Your task to perform on an android device: When is my next appointment? Image 0: 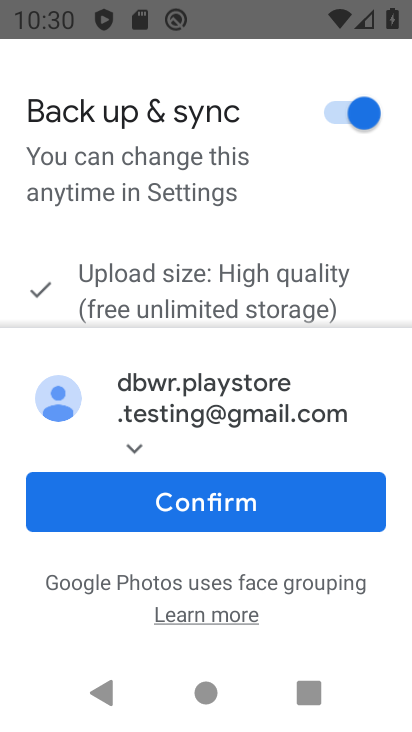
Step 0: press home button
Your task to perform on an android device: When is my next appointment? Image 1: 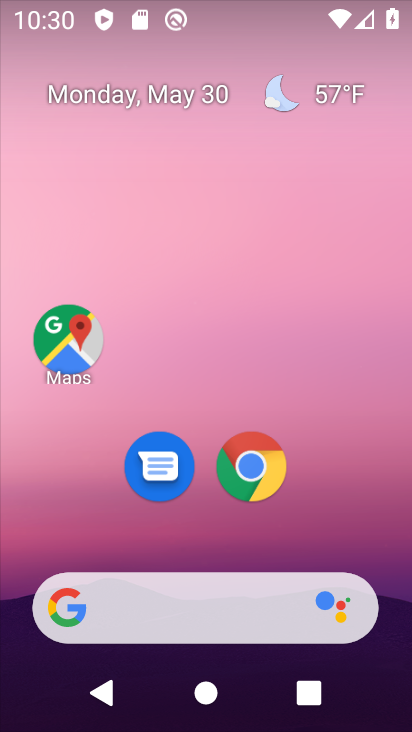
Step 1: drag from (318, 539) to (247, 73)
Your task to perform on an android device: When is my next appointment? Image 2: 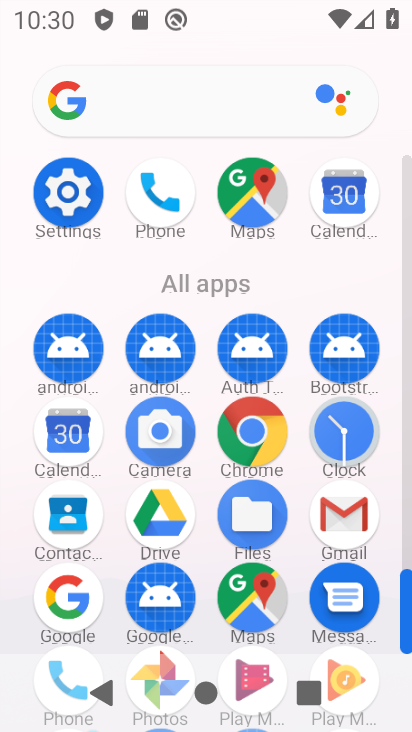
Step 2: click (61, 441)
Your task to perform on an android device: When is my next appointment? Image 3: 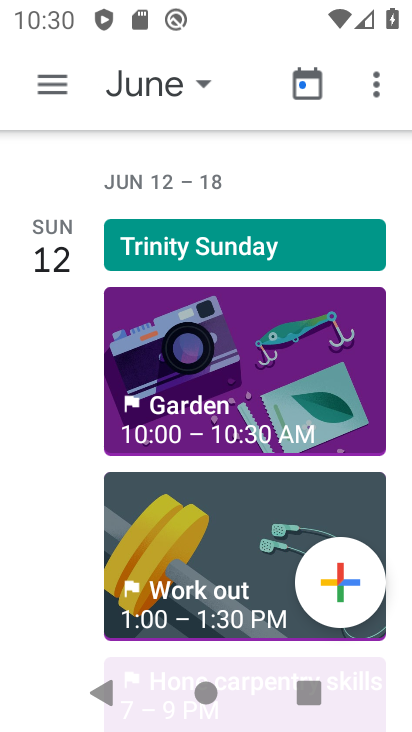
Step 3: click (53, 80)
Your task to perform on an android device: When is my next appointment? Image 4: 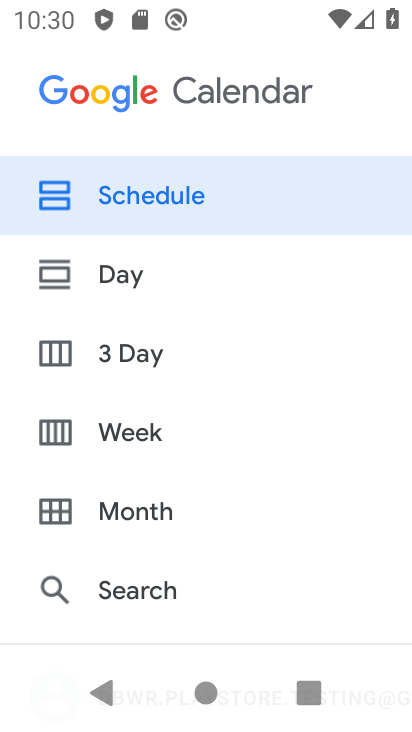
Step 4: drag from (347, 614) to (317, 182)
Your task to perform on an android device: When is my next appointment? Image 5: 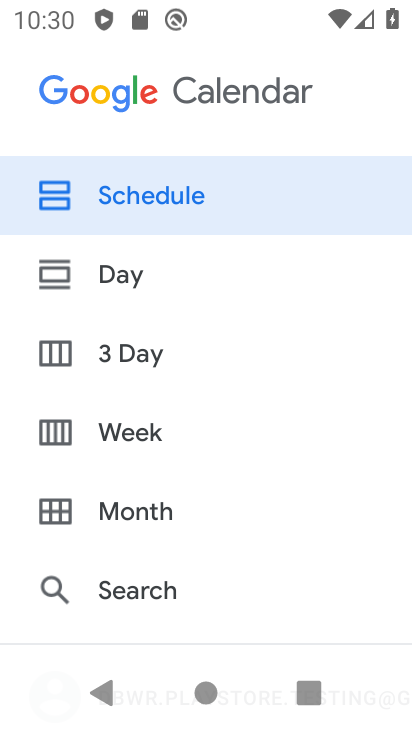
Step 5: drag from (282, 609) to (317, 112)
Your task to perform on an android device: When is my next appointment? Image 6: 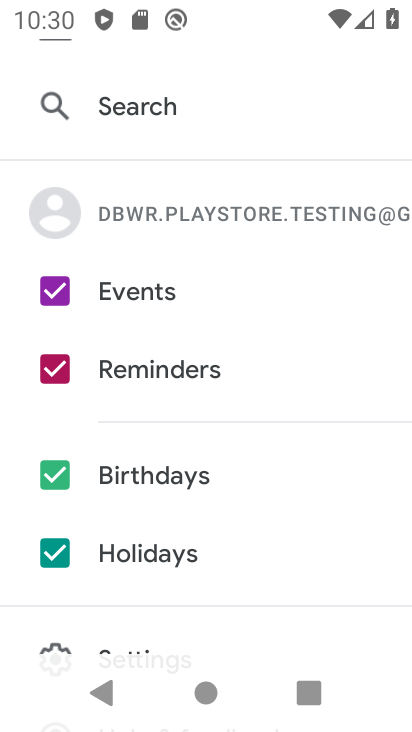
Step 6: drag from (304, 298) to (254, 719)
Your task to perform on an android device: When is my next appointment? Image 7: 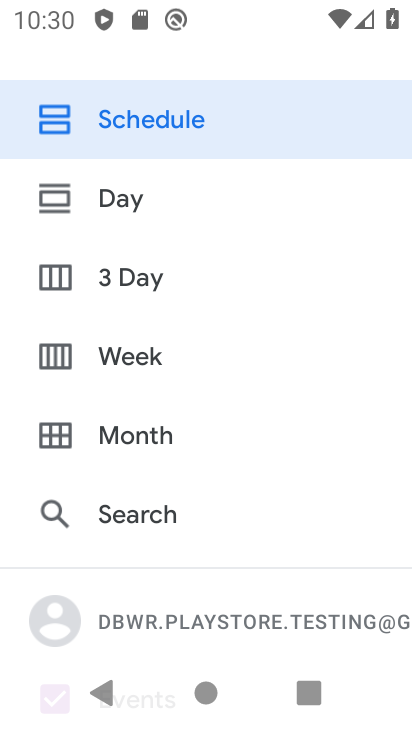
Step 7: click (198, 125)
Your task to perform on an android device: When is my next appointment? Image 8: 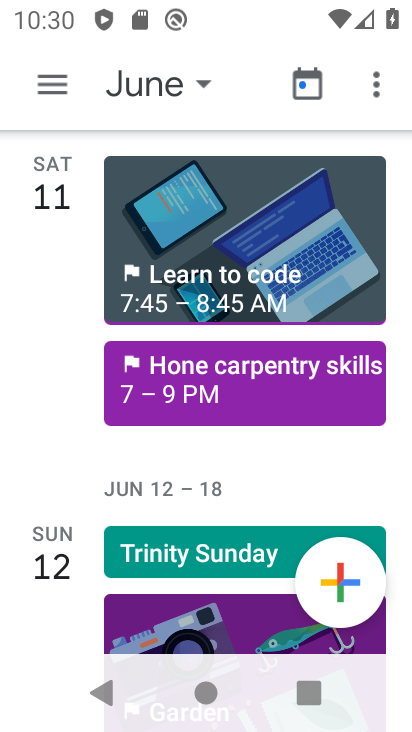
Step 8: task complete